Your task to perform on an android device: Open ESPN.com Image 0: 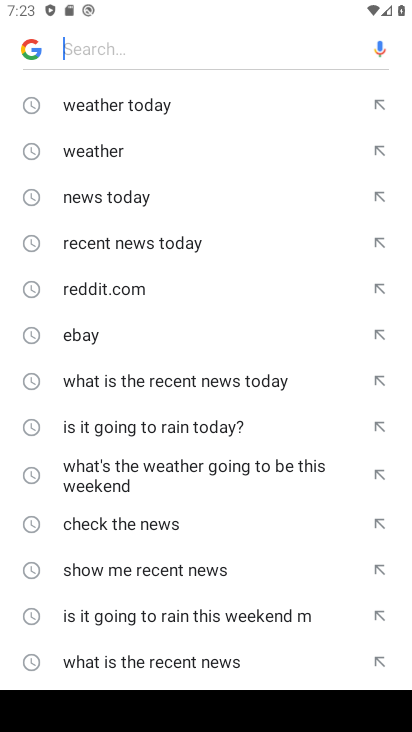
Step 0: press home button
Your task to perform on an android device: Open ESPN.com Image 1: 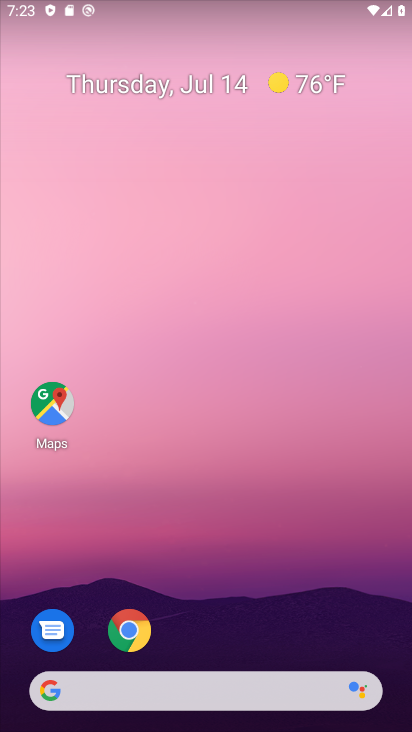
Step 1: drag from (241, 655) to (128, 159)
Your task to perform on an android device: Open ESPN.com Image 2: 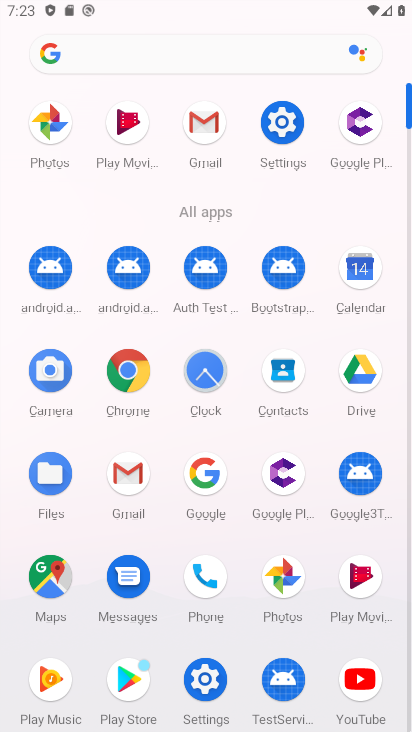
Step 2: click (139, 361)
Your task to perform on an android device: Open ESPN.com Image 3: 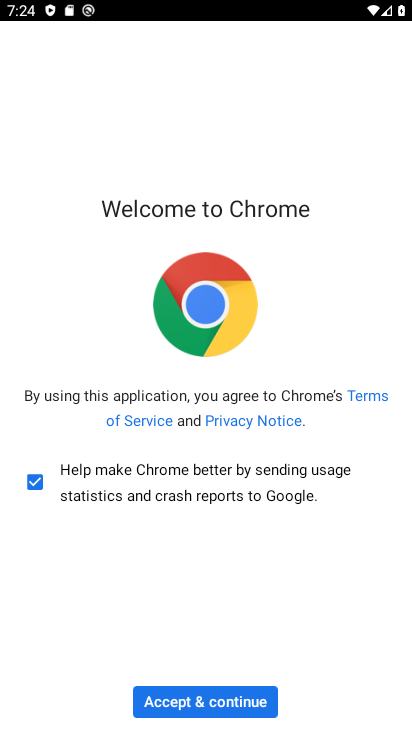
Step 3: click (229, 693)
Your task to perform on an android device: Open ESPN.com Image 4: 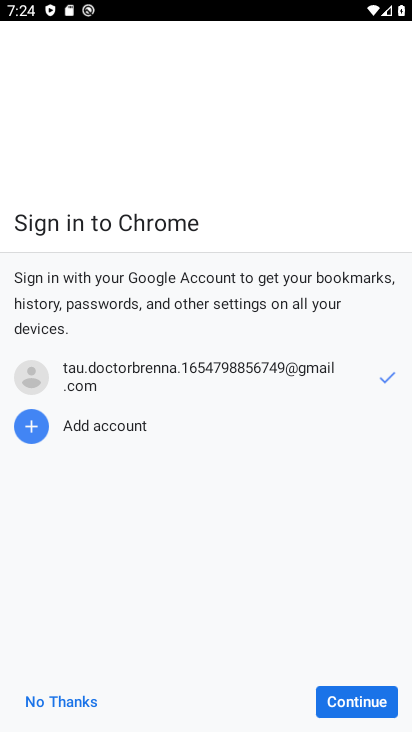
Step 4: click (350, 700)
Your task to perform on an android device: Open ESPN.com Image 5: 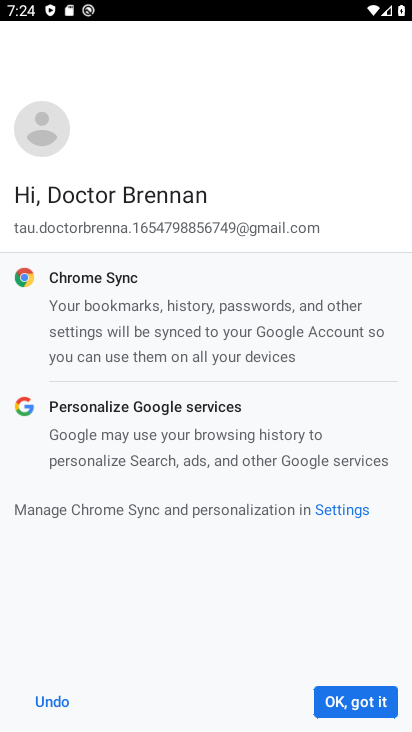
Step 5: click (362, 706)
Your task to perform on an android device: Open ESPN.com Image 6: 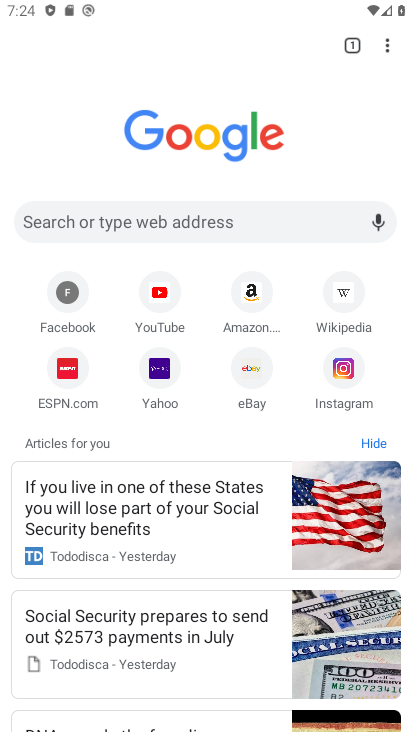
Step 6: click (76, 372)
Your task to perform on an android device: Open ESPN.com Image 7: 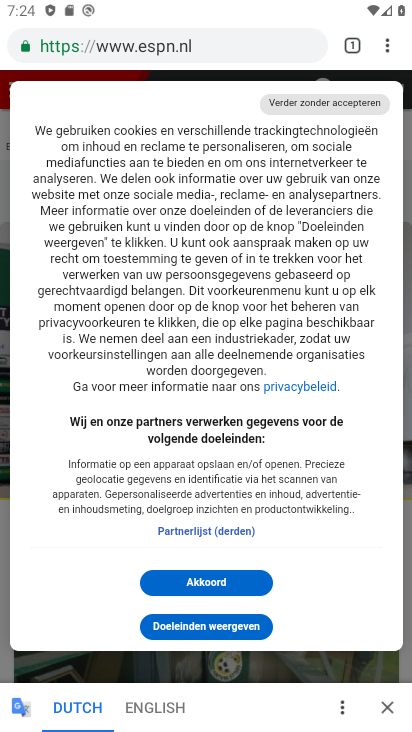
Step 7: task complete